Your task to perform on an android device: Set the phone to "Do not disturb". Image 0: 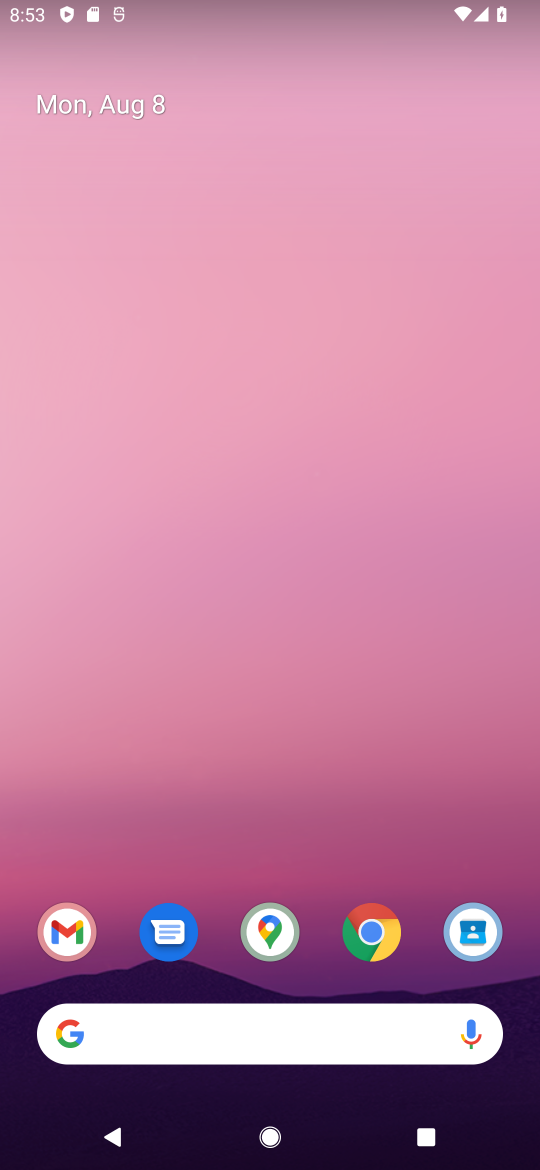
Step 0: drag from (255, 16) to (351, 900)
Your task to perform on an android device: Set the phone to "Do not disturb". Image 1: 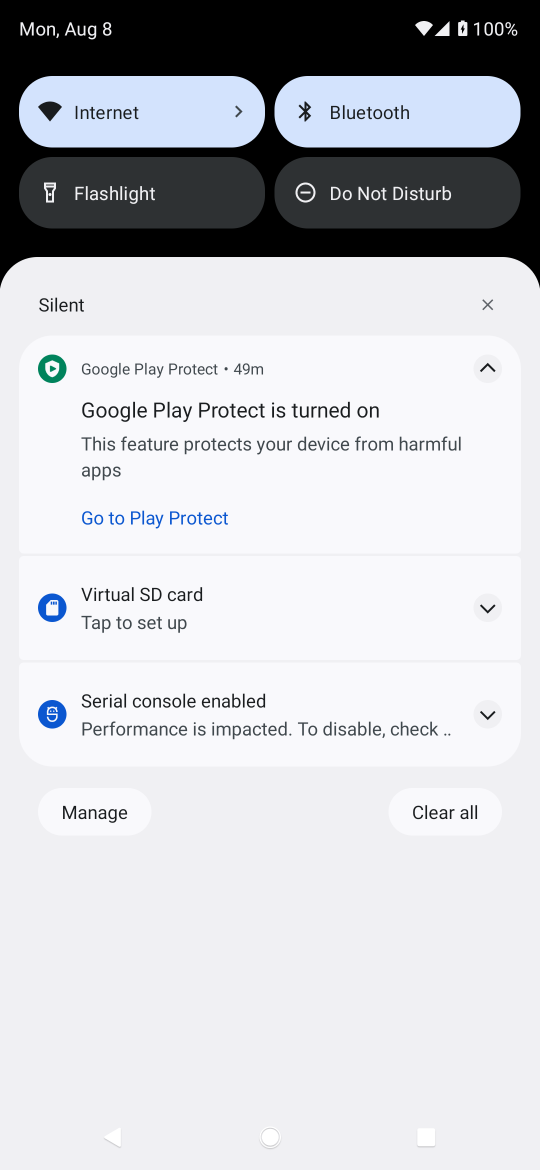
Step 1: click (377, 202)
Your task to perform on an android device: Set the phone to "Do not disturb". Image 2: 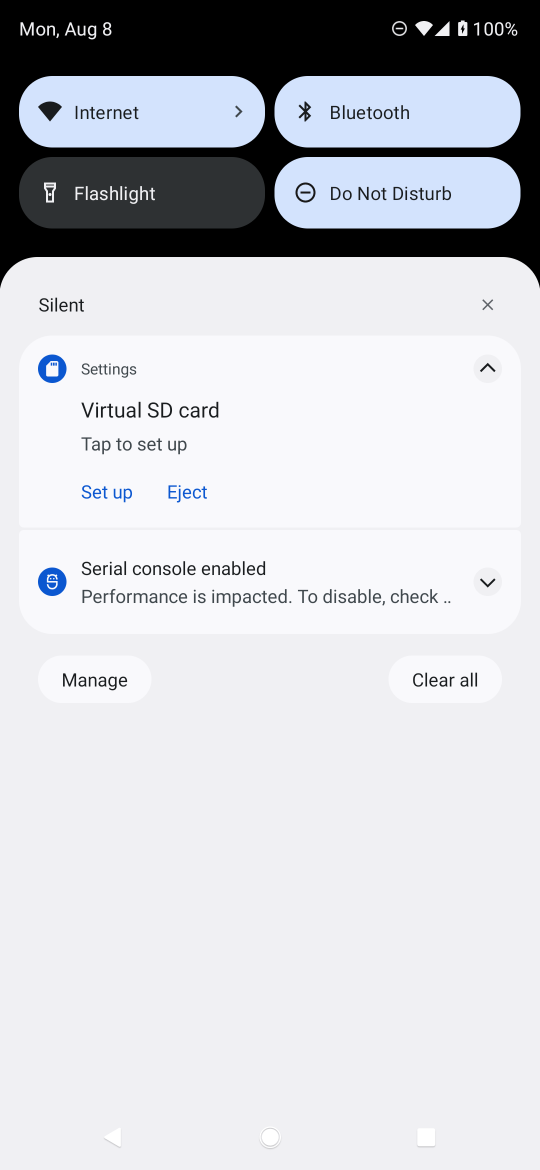
Step 2: task complete